Your task to perform on an android device: Search for sushi restaurants on Maps Image 0: 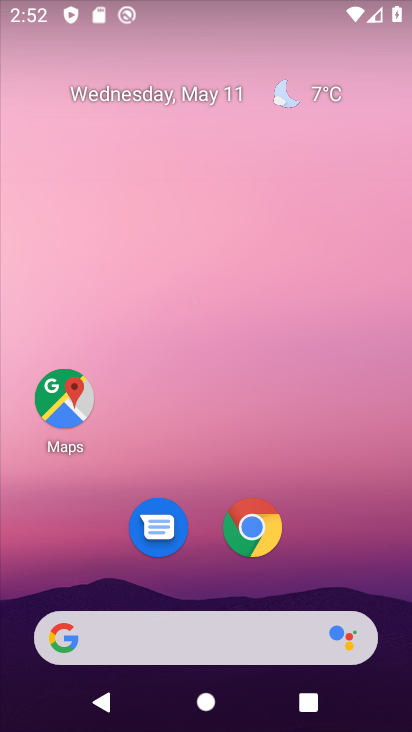
Step 0: click (59, 404)
Your task to perform on an android device: Search for sushi restaurants on Maps Image 1: 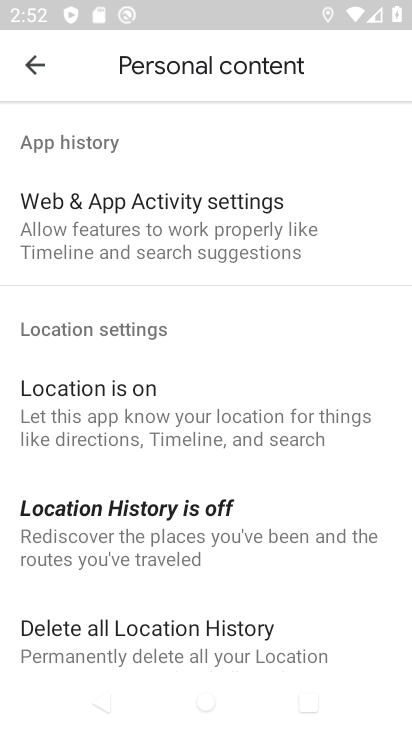
Step 1: click (30, 69)
Your task to perform on an android device: Search for sushi restaurants on Maps Image 2: 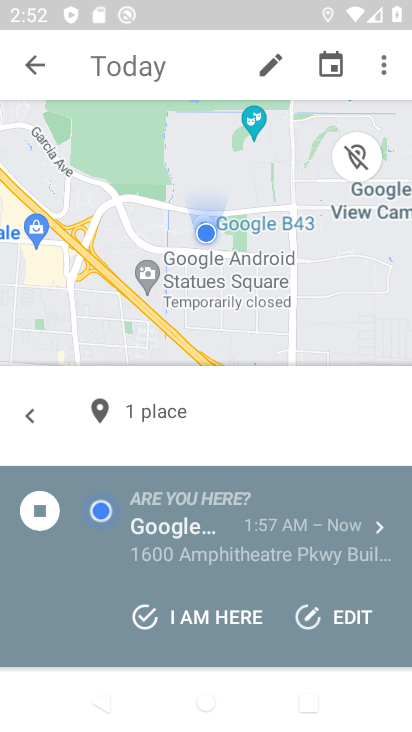
Step 2: click (30, 69)
Your task to perform on an android device: Search for sushi restaurants on Maps Image 3: 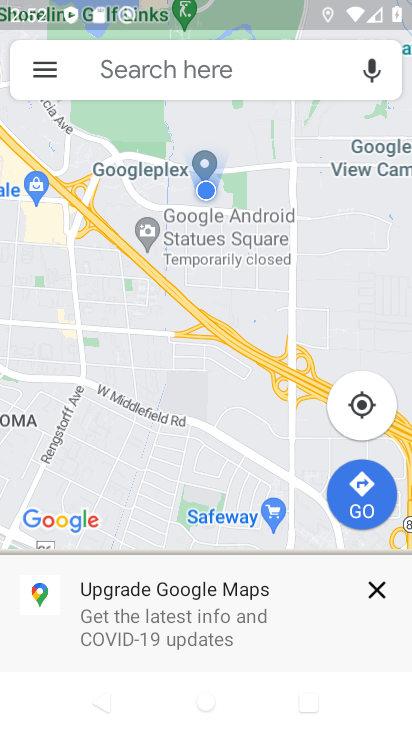
Step 3: click (105, 73)
Your task to perform on an android device: Search for sushi restaurants on Maps Image 4: 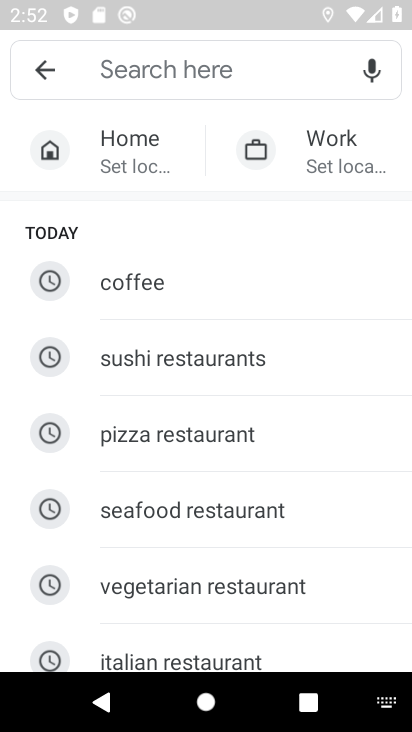
Step 4: type "sushi restaurant"
Your task to perform on an android device: Search for sushi restaurants on Maps Image 5: 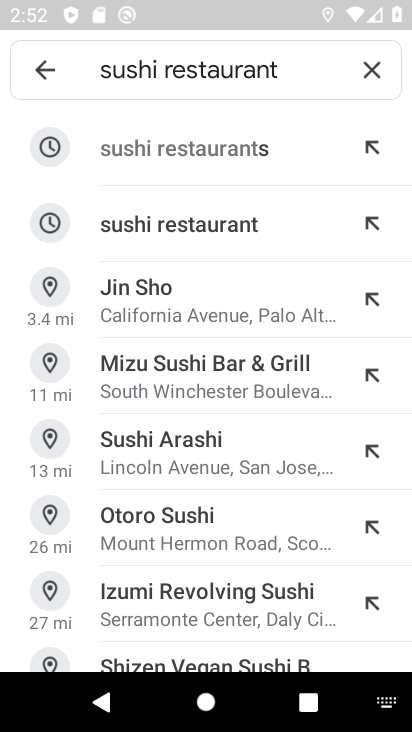
Step 5: click (174, 148)
Your task to perform on an android device: Search for sushi restaurants on Maps Image 6: 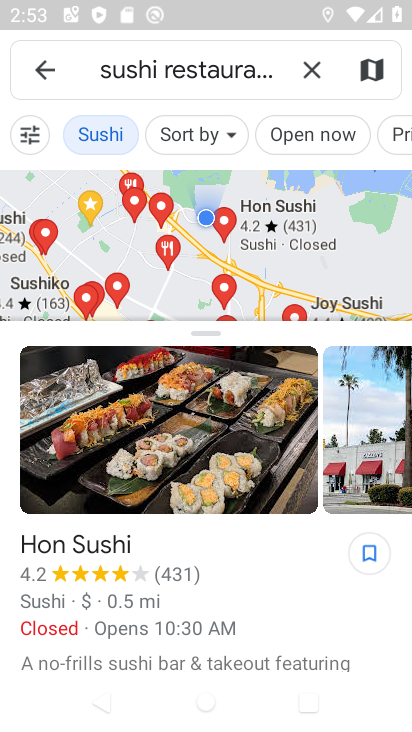
Step 6: task complete